Your task to perform on an android device: Open display settings Image 0: 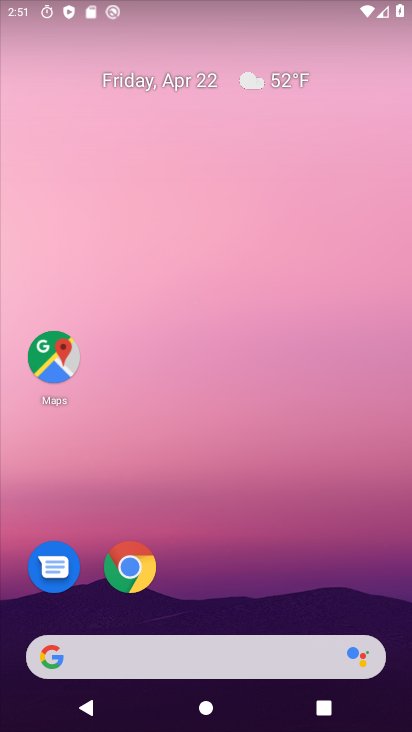
Step 0: drag from (229, 483) to (218, 74)
Your task to perform on an android device: Open display settings Image 1: 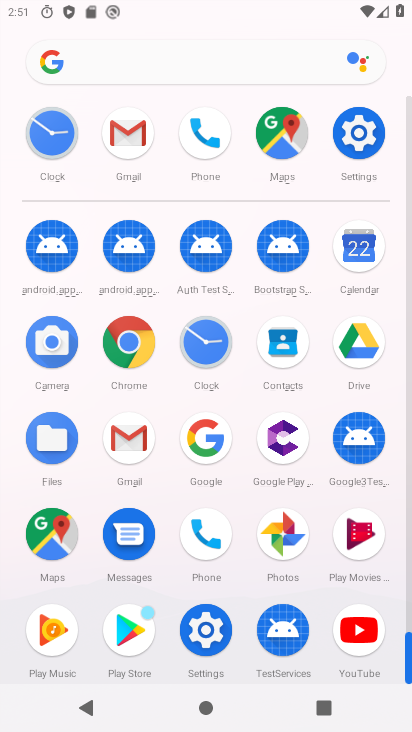
Step 1: click (209, 633)
Your task to perform on an android device: Open display settings Image 2: 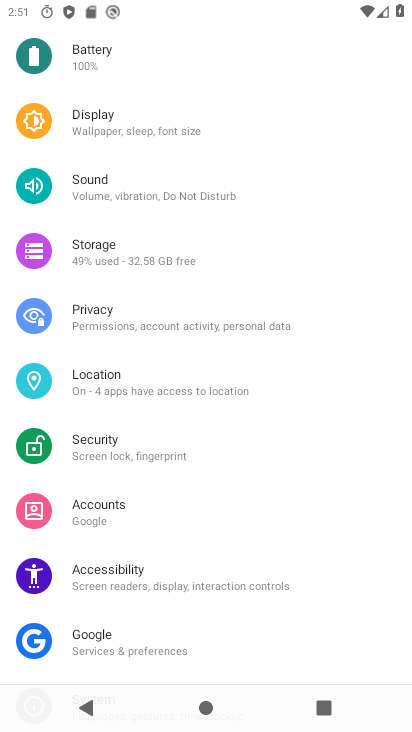
Step 2: click (170, 122)
Your task to perform on an android device: Open display settings Image 3: 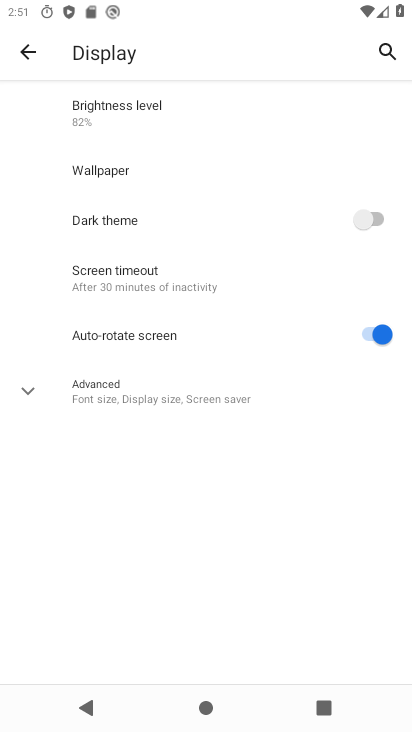
Step 3: task complete